Your task to perform on an android device: toggle javascript in the chrome app Image 0: 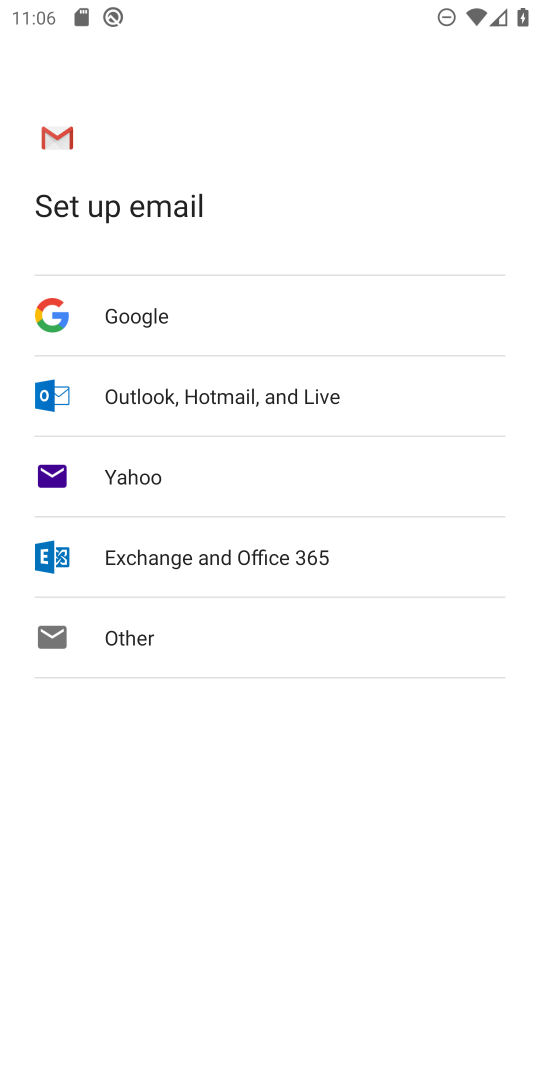
Step 0: press home button
Your task to perform on an android device: toggle javascript in the chrome app Image 1: 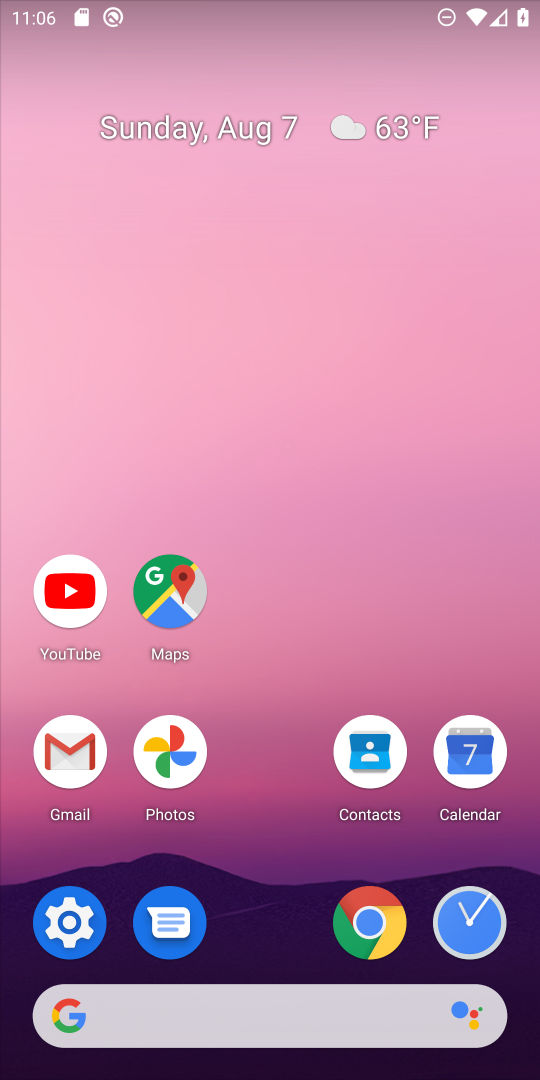
Step 1: click (370, 918)
Your task to perform on an android device: toggle javascript in the chrome app Image 2: 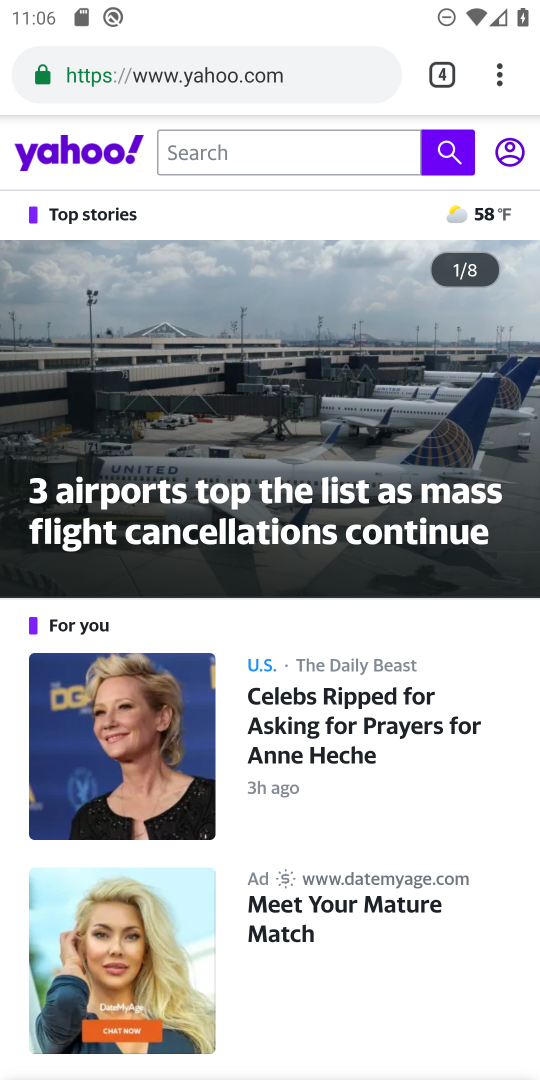
Step 2: click (503, 64)
Your task to perform on an android device: toggle javascript in the chrome app Image 3: 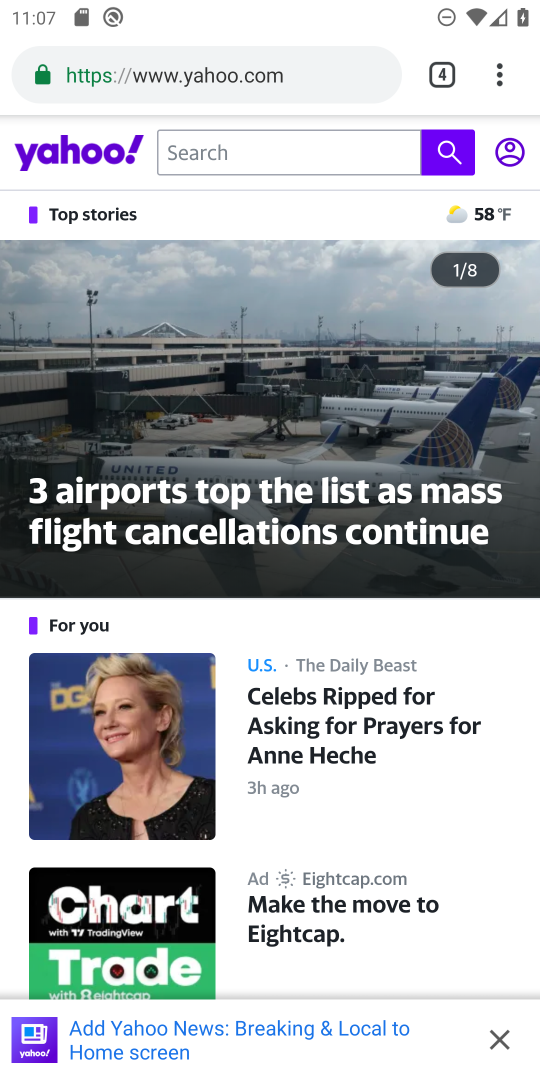
Step 3: click (505, 73)
Your task to perform on an android device: toggle javascript in the chrome app Image 4: 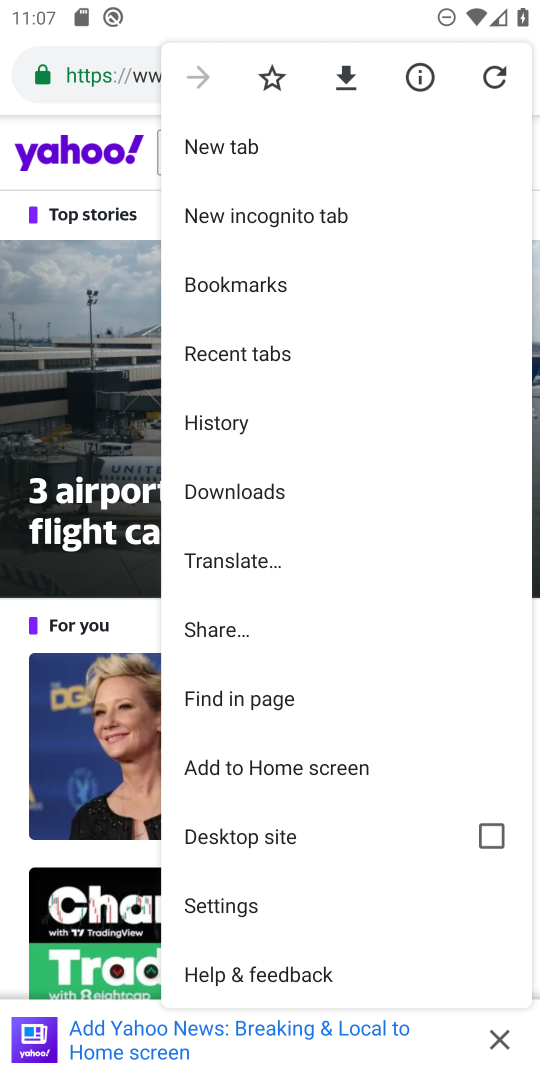
Step 4: click (234, 899)
Your task to perform on an android device: toggle javascript in the chrome app Image 5: 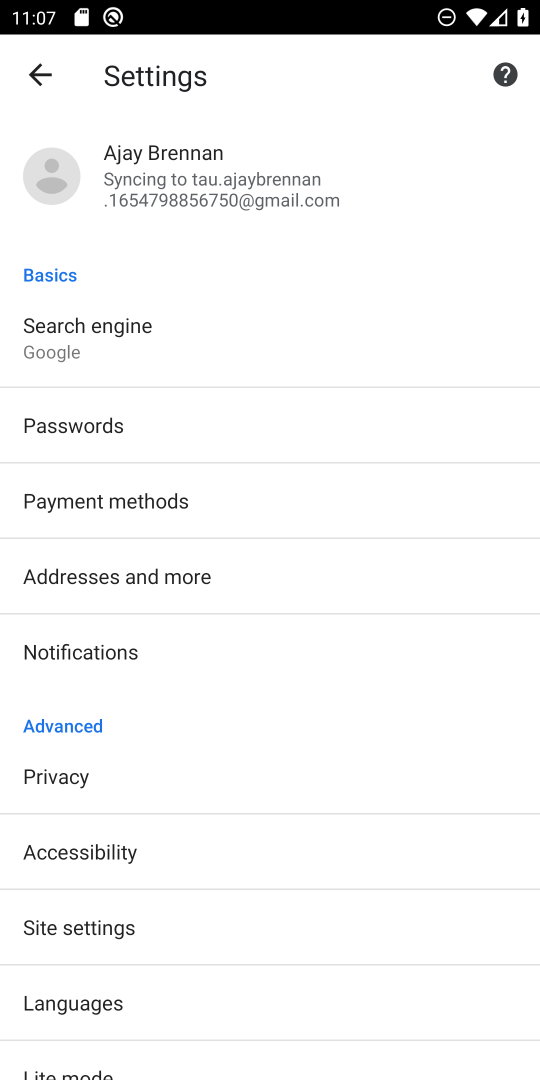
Step 5: click (78, 921)
Your task to perform on an android device: toggle javascript in the chrome app Image 6: 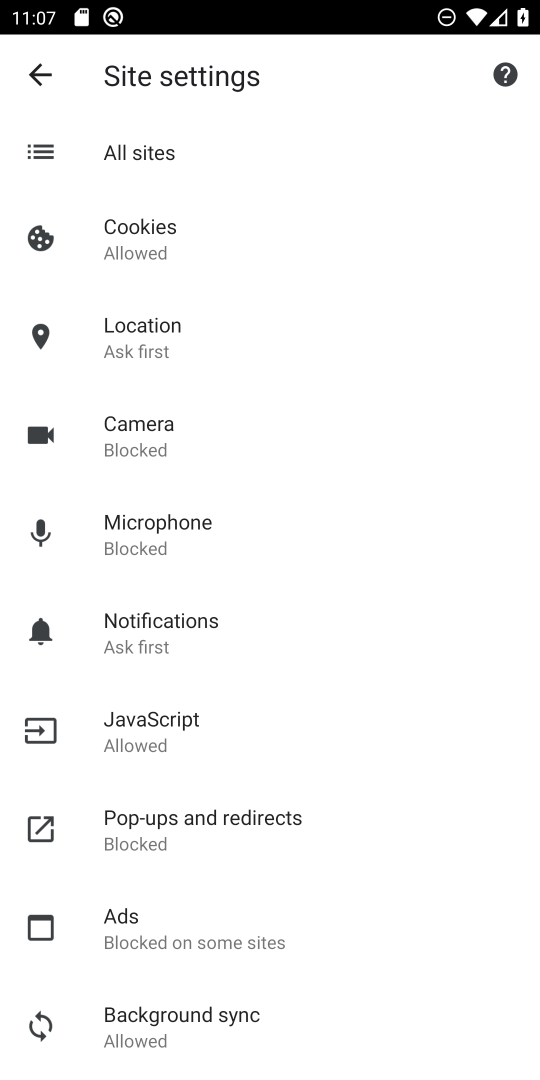
Step 6: click (142, 725)
Your task to perform on an android device: toggle javascript in the chrome app Image 7: 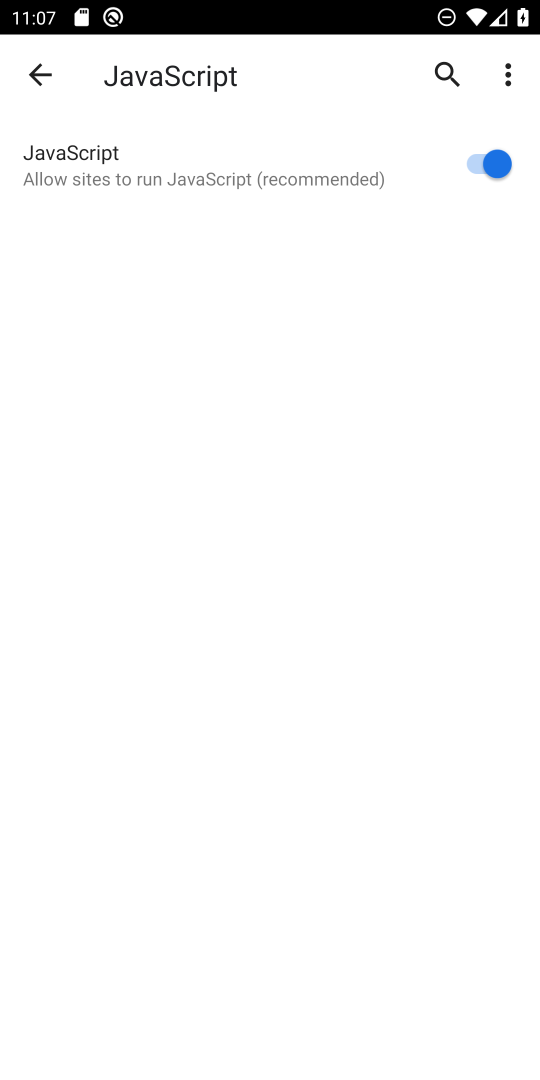
Step 7: click (493, 157)
Your task to perform on an android device: toggle javascript in the chrome app Image 8: 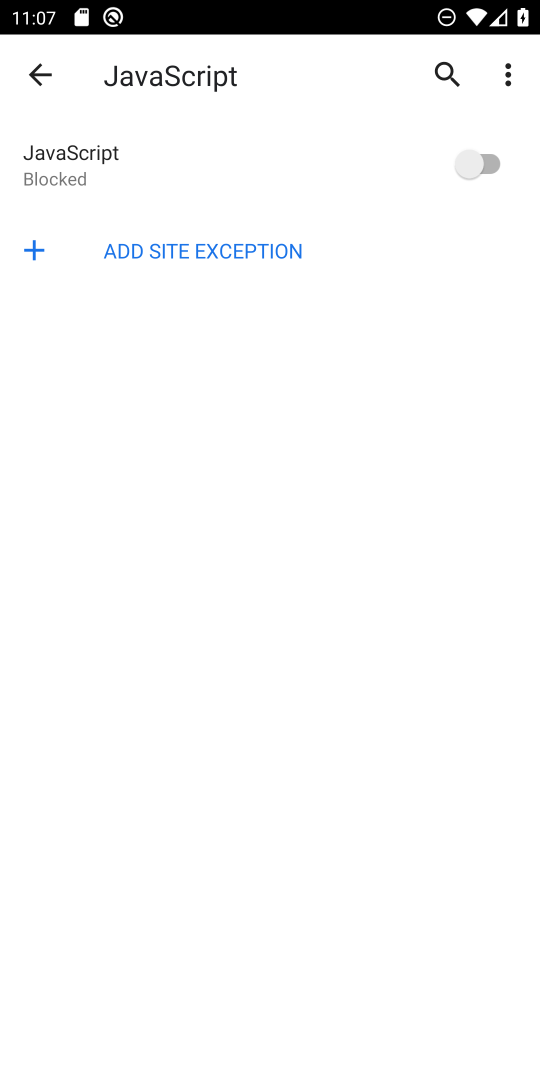
Step 8: task complete